Your task to perform on an android device: What's on my calendar today? Image 0: 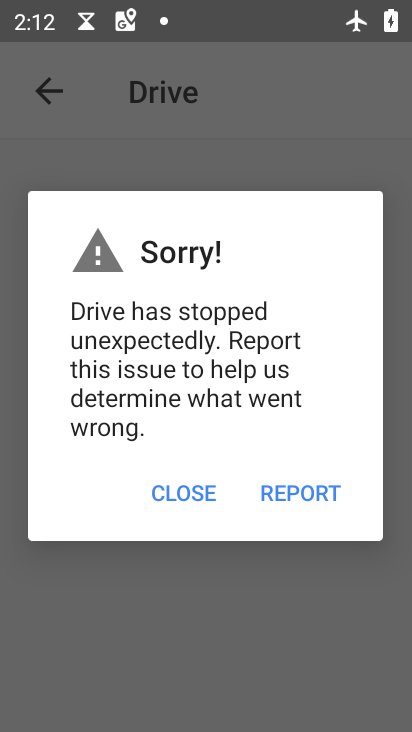
Step 0: press home button
Your task to perform on an android device: What's on my calendar today? Image 1: 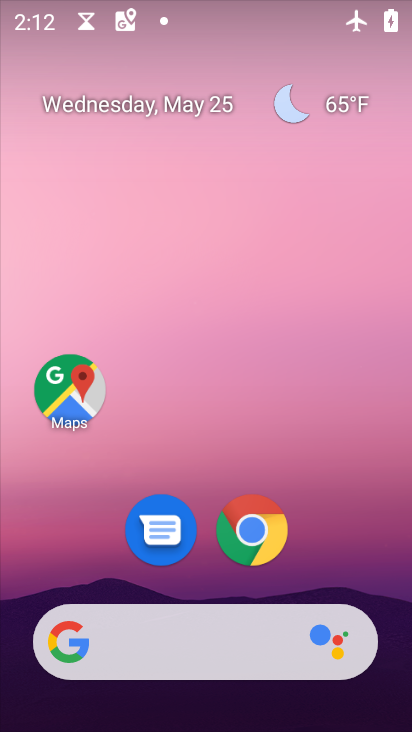
Step 1: drag from (220, 493) to (222, 177)
Your task to perform on an android device: What's on my calendar today? Image 2: 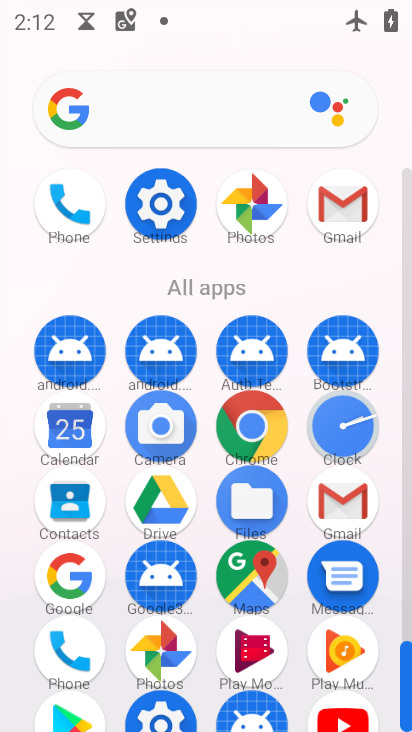
Step 2: click (53, 423)
Your task to perform on an android device: What's on my calendar today? Image 3: 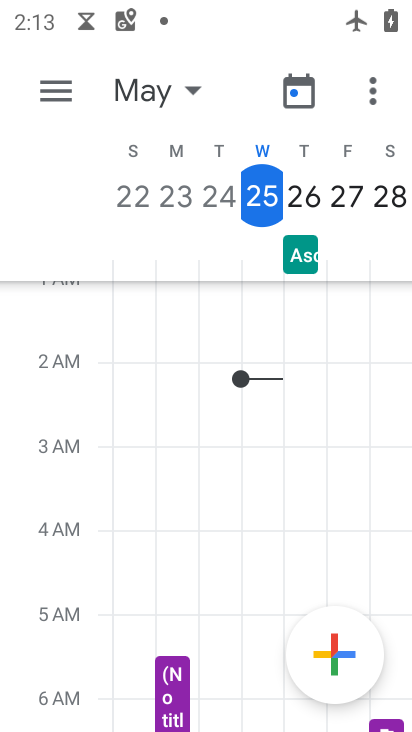
Step 3: click (63, 75)
Your task to perform on an android device: What's on my calendar today? Image 4: 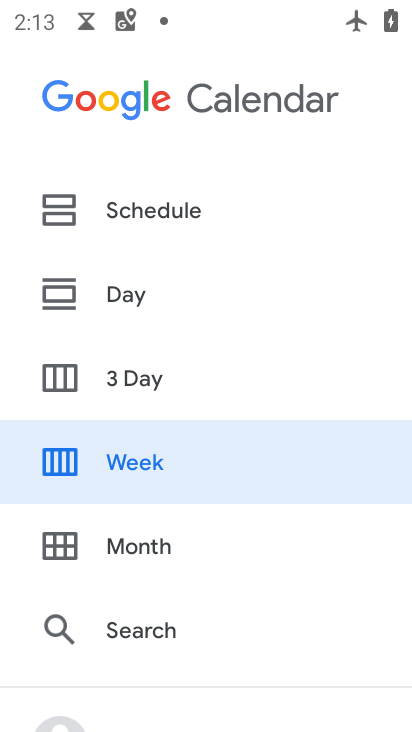
Step 4: click (144, 474)
Your task to perform on an android device: What's on my calendar today? Image 5: 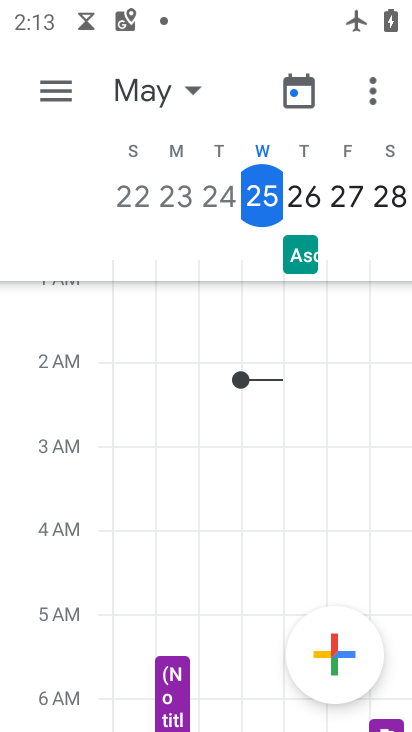
Step 5: click (253, 193)
Your task to perform on an android device: What's on my calendar today? Image 6: 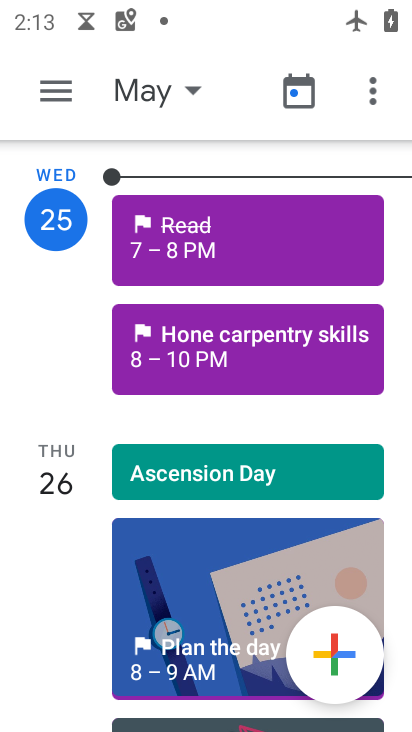
Step 6: task complete